Your task to perform on an android device: Go to Wikipedia Image 0: 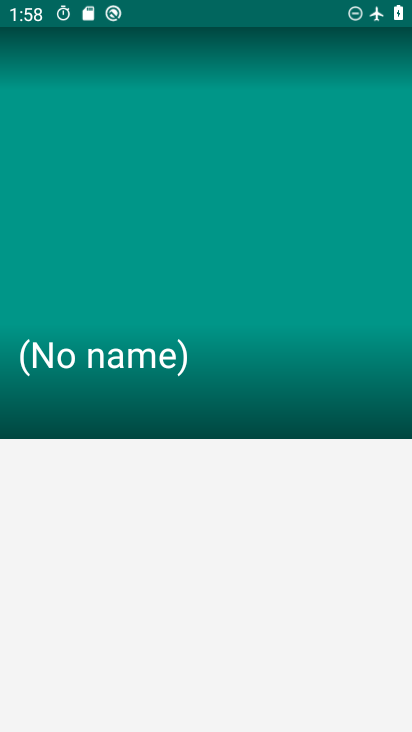
Step 0: drag from (232, 717) to (227, 254)
Your task to perform on an android device: Go to Wikipedia Image 1: 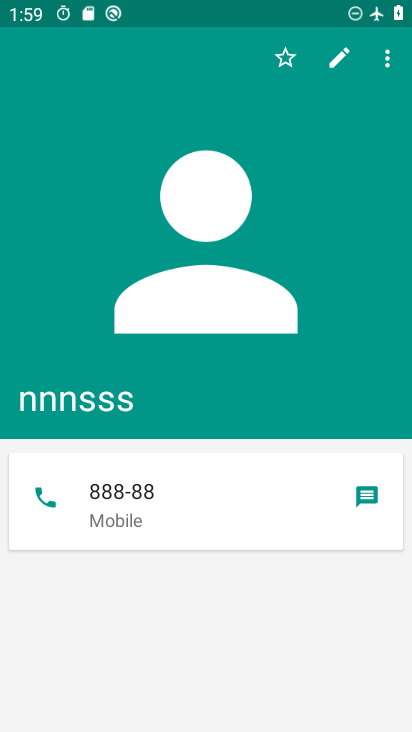
Step 1: press home button
Your task to perform on an android device: Go to Wikipedia Image 2: 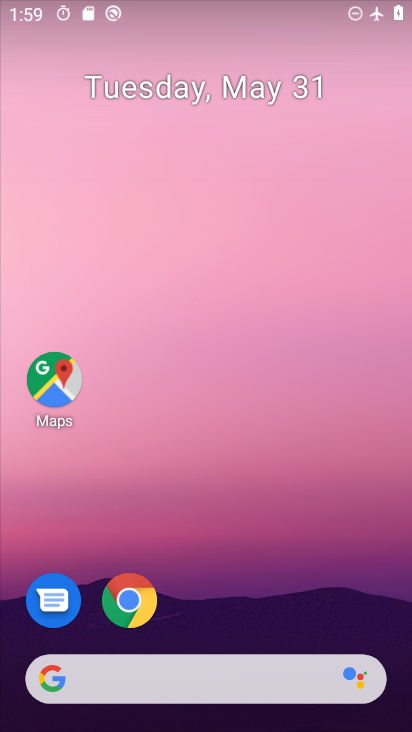
Step 2: drag from (236, 719) to (231, 175)
Your task to perform on an android device: Go to Wikipedia Image 3: 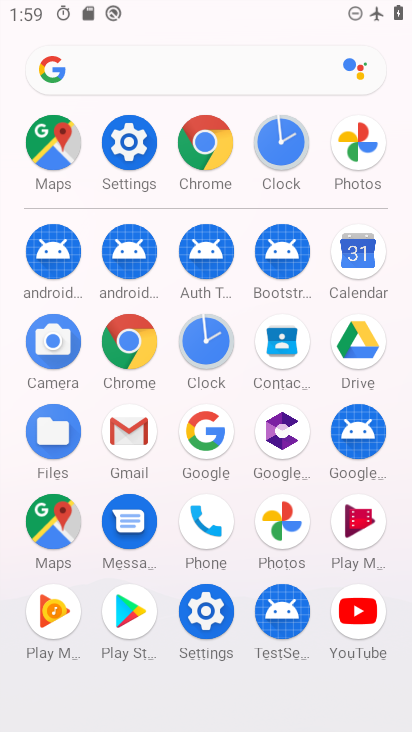
Step 3: click (128, 344)
Your task to perform on an android device: Go to Wikipedia Image 4: 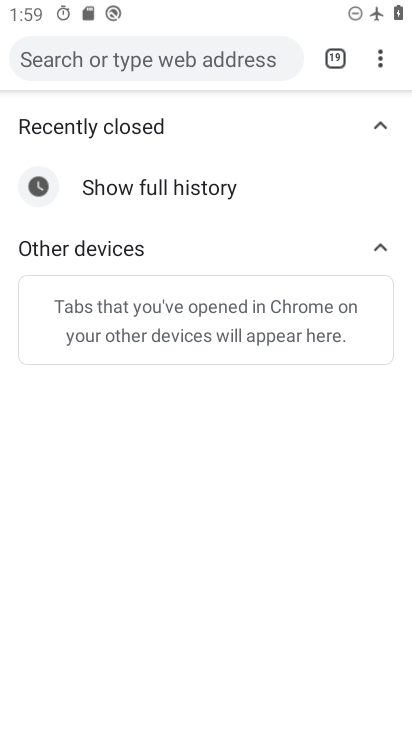
Step 4: click (381, 66)
Your task to perform on an android device: Go to Wikipedia Image 5: 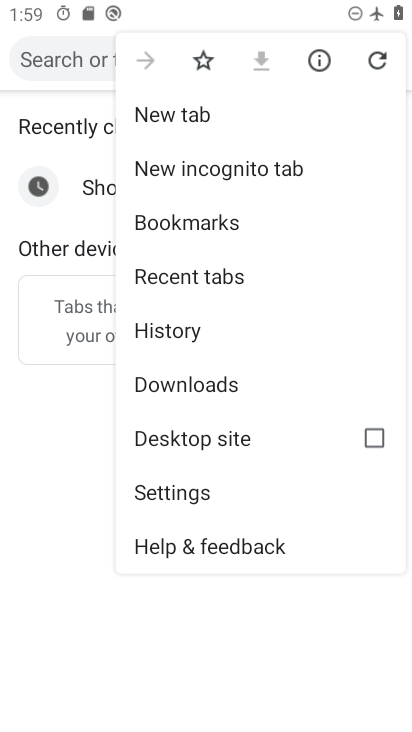
Step 5: click (172, 115)
Your task to perform on an android device: Go to Wikipedia Image 6: 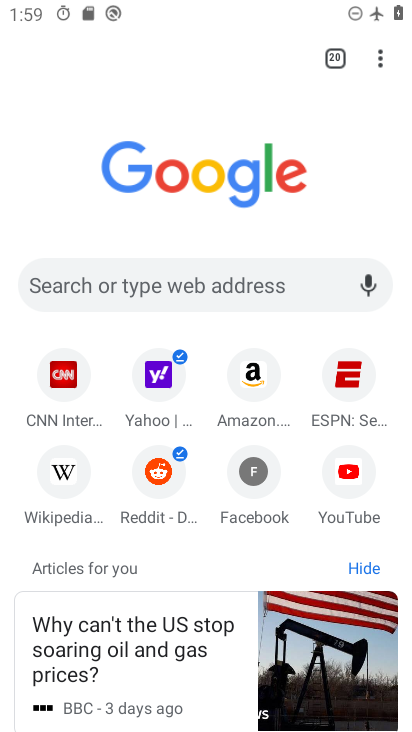
Step 6: click (65, 467)
Your task to perform on an android device: Go to Wikipedia Image 7: 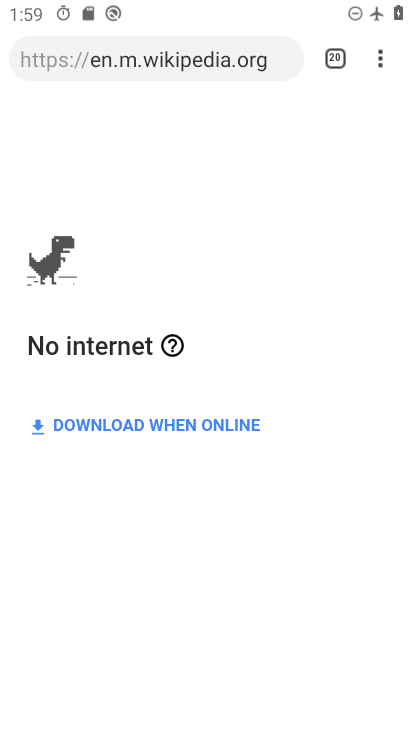
Step 7: task complete